Your task to perform on an android device: toggle location history Image 0: 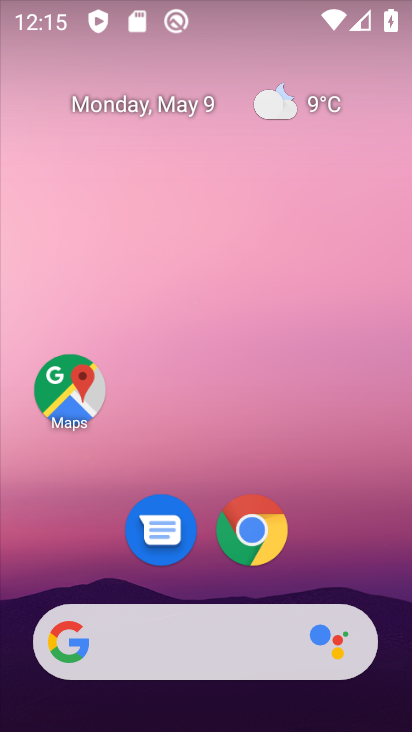
Step 0: drag from (353, 562) to (365, 252)
Your task to perform on an android device: toggle location history Image 1: 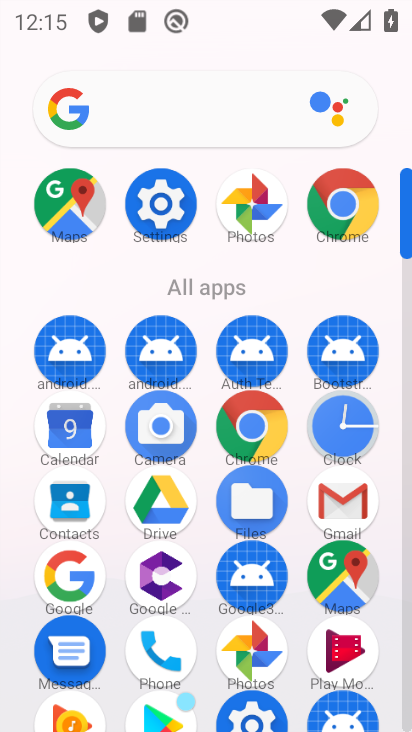
Step 1: click (153, 204)
Your task to perform on an android device: toggle location history Image 2: 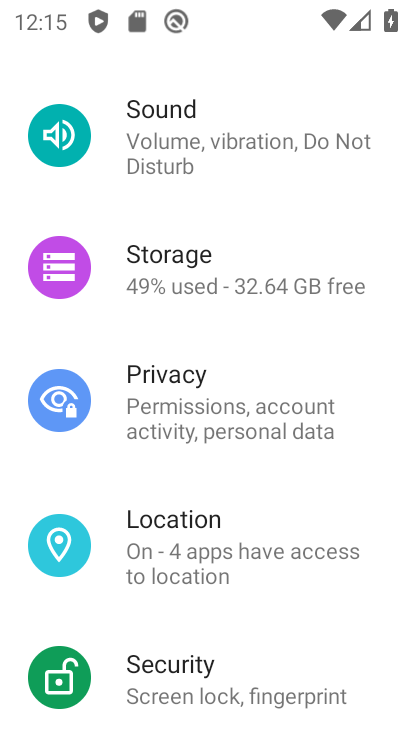
Step 2: click (242, 533)
Your task to perform on an android device: toggle location history Image 3: 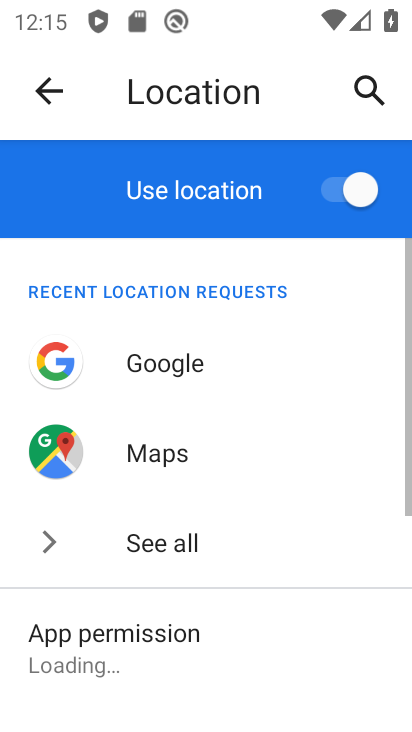
Step 3: drag from (229, 654) to (291, 217)
Your task to perform on an android device: toggle location history Image 4: 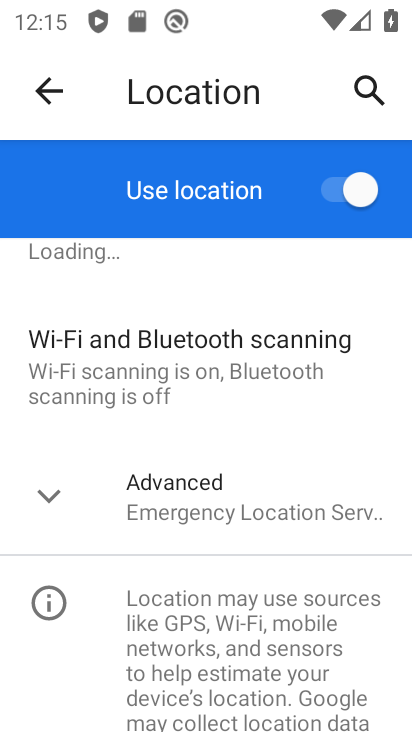
Step 4: click (189, 508)
Your task to perform on an android device: toggle location history Image 5: 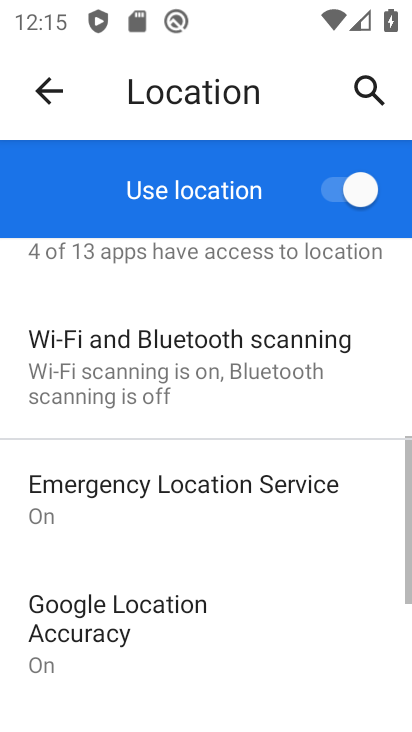
Step 5: drag from (212, 668) to (278, 316)
Your task to perform on an android device: toggle location history Image 6: 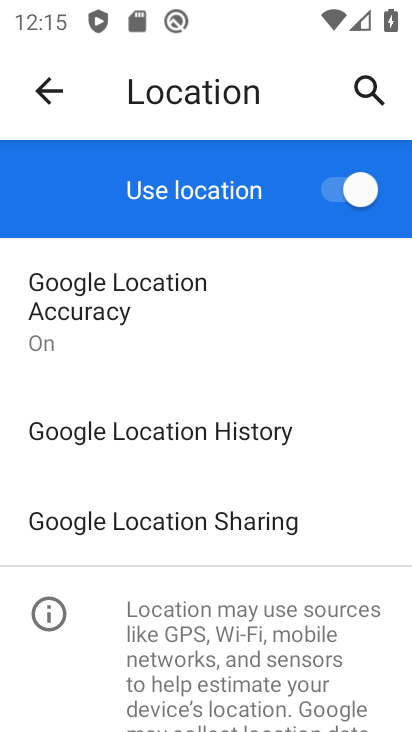
Step 6: click (255, 409)
Your task to perform on an android device: toggle location history Image 7: 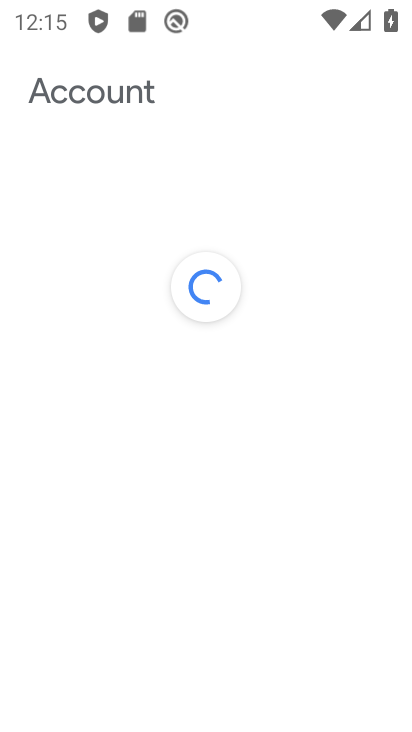
Step 7: drag from (252, 613) to (282, 143)
Your task to perform on an android device: toggle location history Image 8: 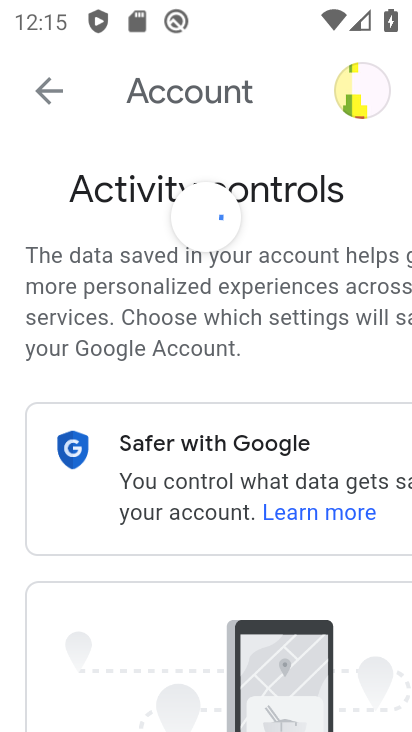
Step 8: drag from (206, 607) to (282, 80)
Your task to perform on an android device: toggle location history Image 9: 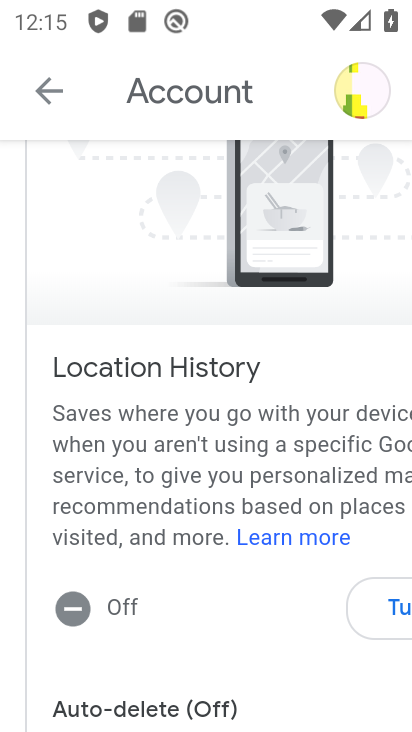
Step 9: click (389, 586)
Your task to perform on an android device: toggle location history Image 10: 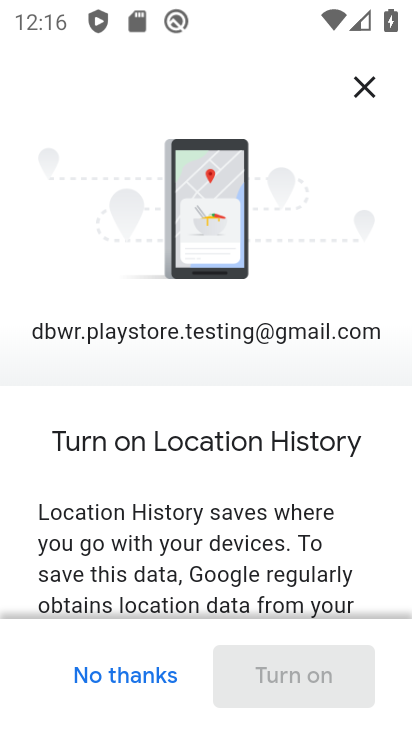
Step 10: click (90, 693)
Your task to perform on an android device: toggle location history Image 11: 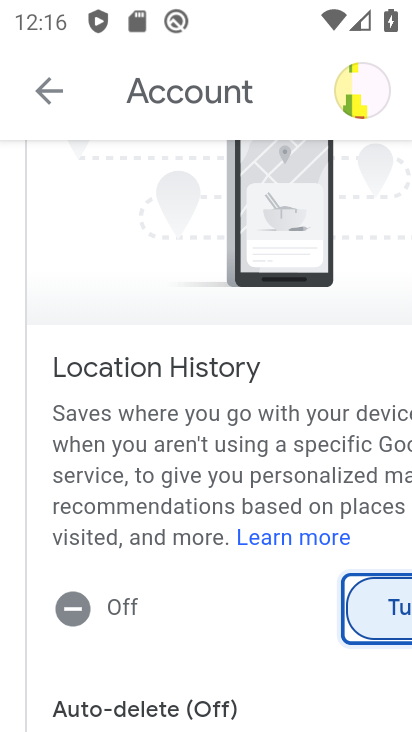
Step 11: task complete